Your task to perform on an android device: turn pop-ups on in chrome Image 0: 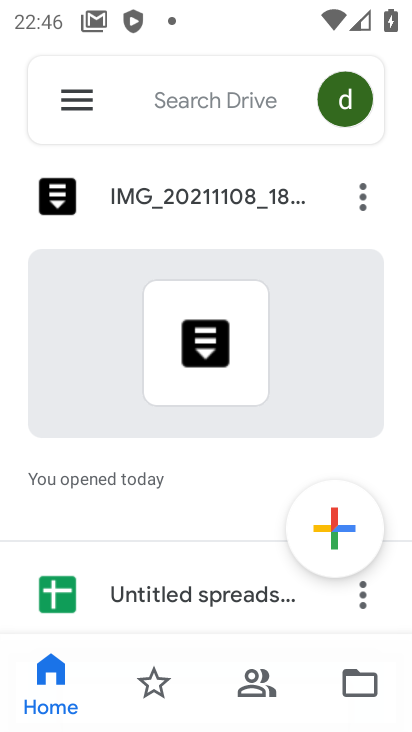
Step 0: press home button
Your task to perform on an android device: turn pop-ups on in chrome Image 1: 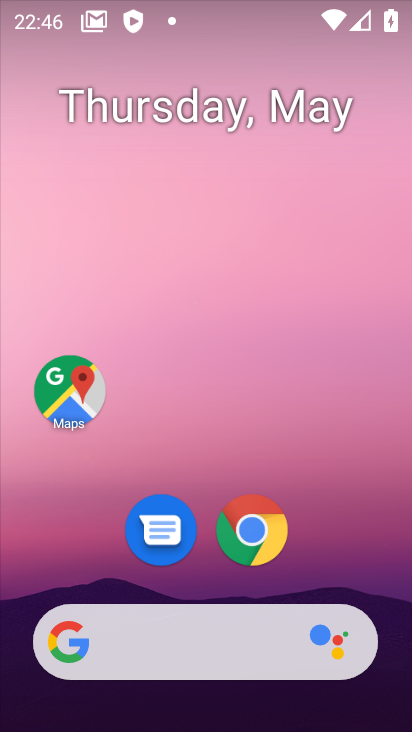
Step 1: click (237, 543)
Your task to perform on an android device: turn pop-ups on in chrome Image 2: 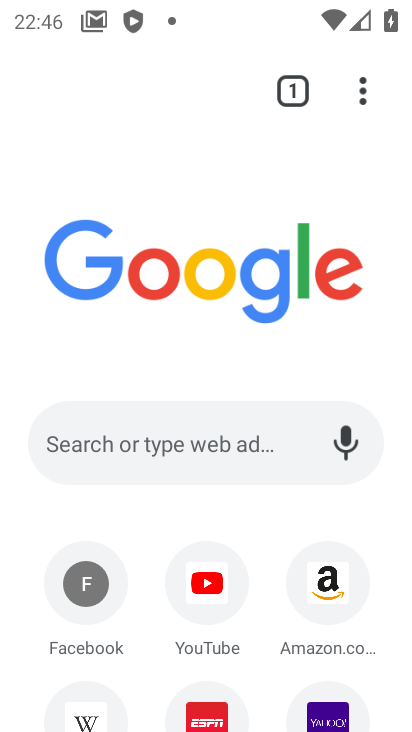
Step 2: click (363, 95)
Your task to perform on an android device: turn pop-ups on in chrome Image 3: 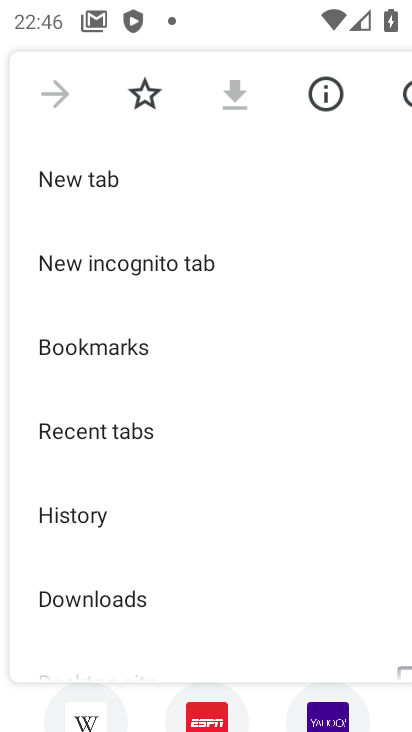
Step 3: drag from (101, 480) to (105, 221)
Your task to perform on an android device: turn pop-ups on in chrome Image 4: 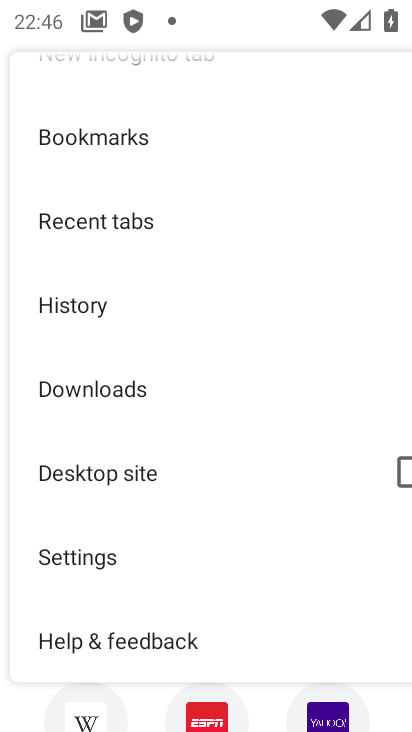
Step 4: click (81, 552)
Your task to perform on an android device: turn pop-ups on in chrome Image 5: 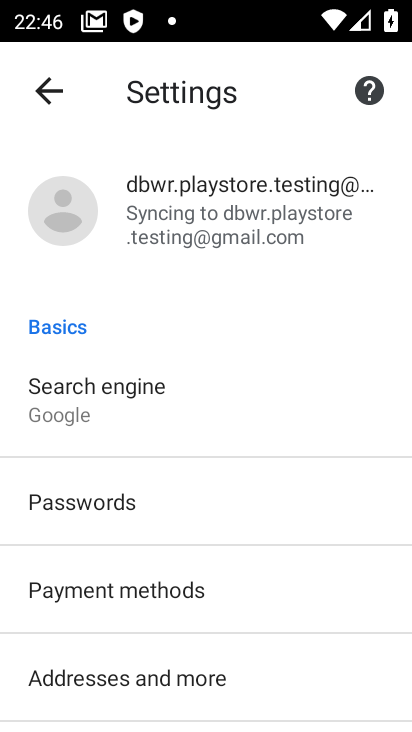
Step 5: drag from (105, 455) to (136, 221)
Your task to perform on an android device: turn pop-ups on in chrome Image 6: 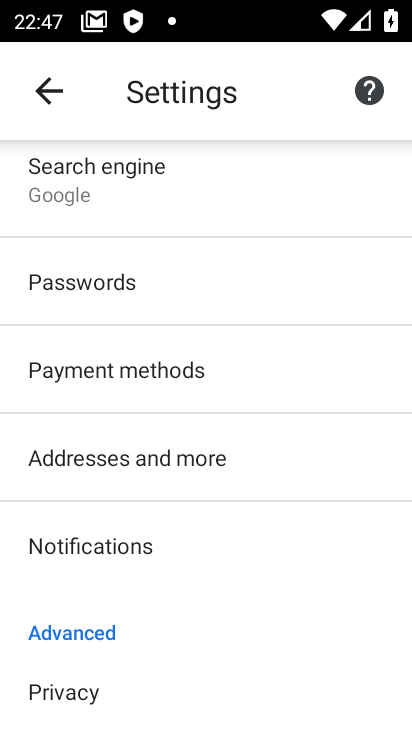
Step 6: drag from (75, 588) to (126, 345)
Your task to perform on an android device: turn pop-ups on in chrome Image 7: 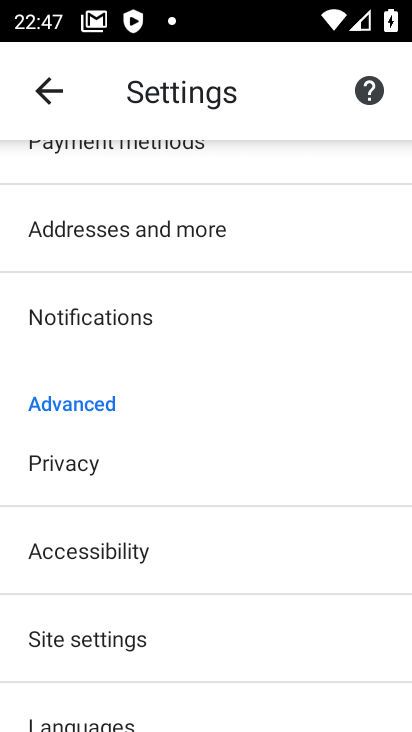
Step 7: click (74, 644)
Your task to perform on an android device: turn pop-ups on in chrome Image 8: 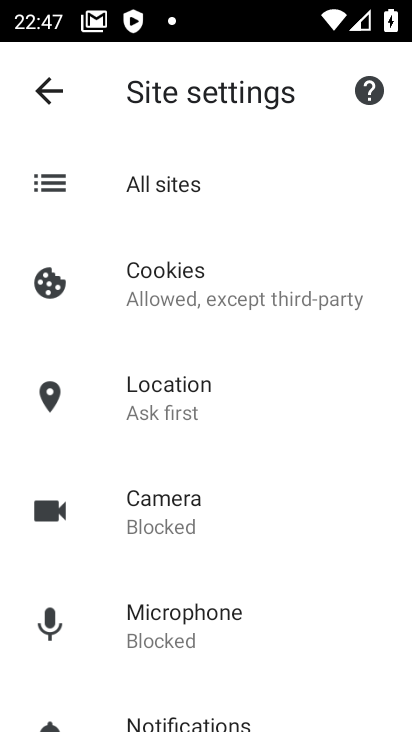
Step 8: drag from (168, 561) to (187, 344)
Your task to perform on an android device: turn pop-ups on in chrome Image 9: 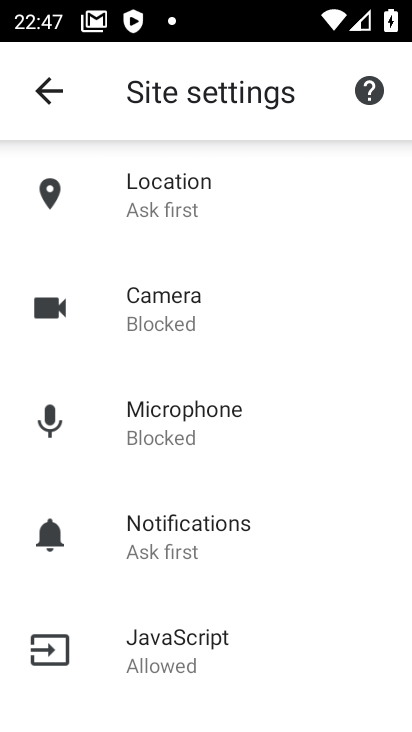
Step 9: drag from (170, 601) to (187, 374)
Your task to perform on an android device: turn pop-ups on in chrome Image 10: 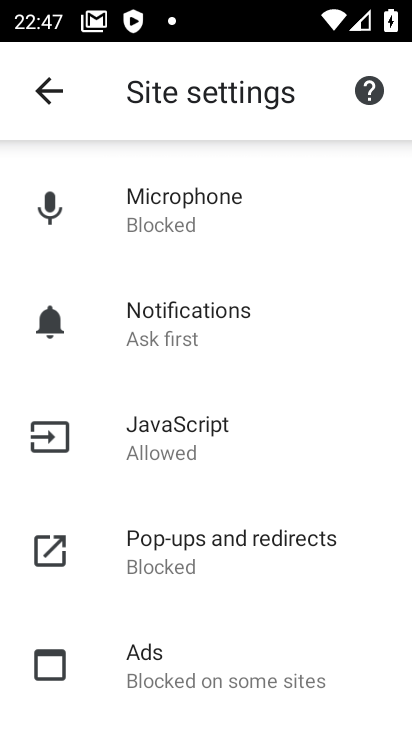
Step 10: click (169, 535)
Your task to perform on an android device: turn pop-ups on in chrome Image 11: 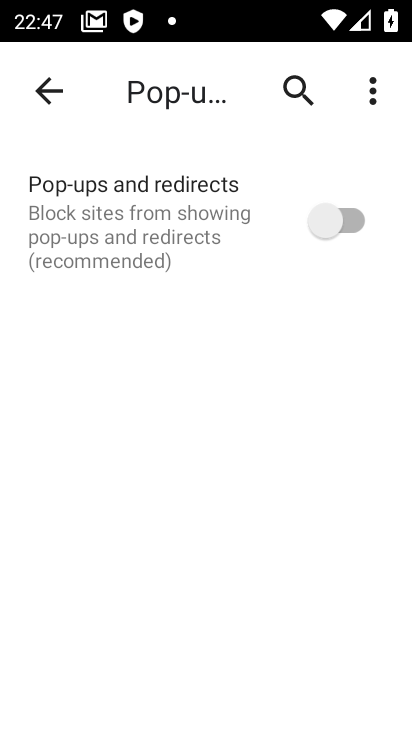
Step 11: click (343, 216)
Your task to perform on an android device: turn pop-ups on in chrome Image 12: 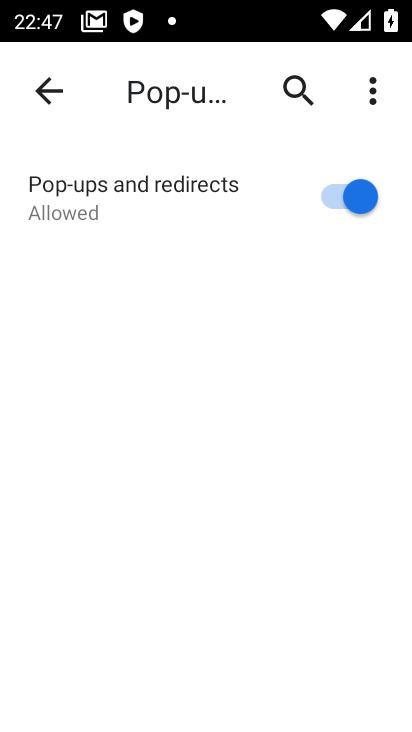
Step 12: task complete